Your task to perform on an android device: Show me recent news Image 0: 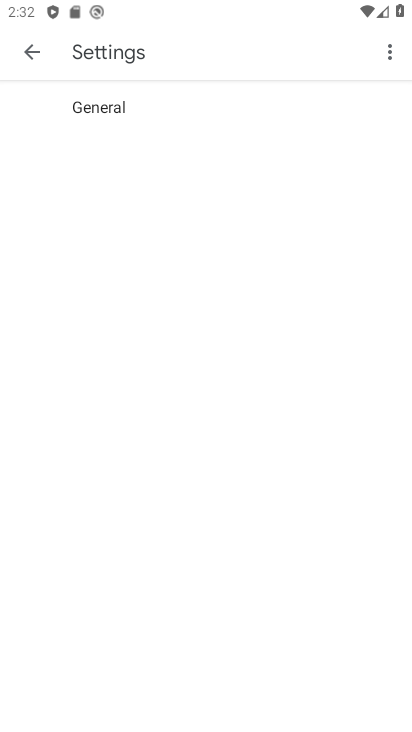
Step 0: press home button
Your task to perform on an android device: Show me recent news Image 1: 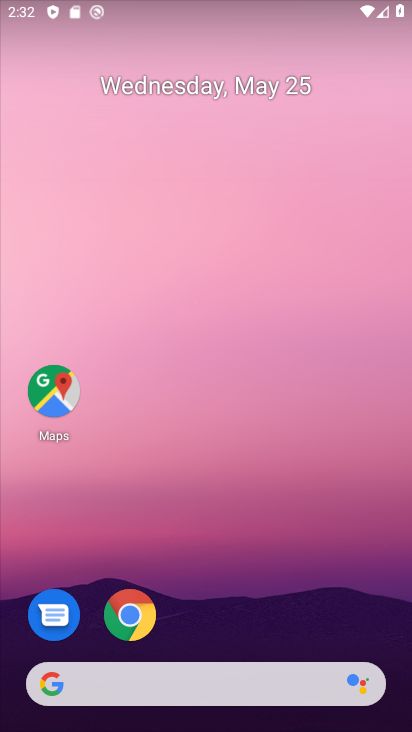
Step 1: drag from (236, 628) to (233, 244)
Your task to perform on an android device: Show me recent news Image 2: 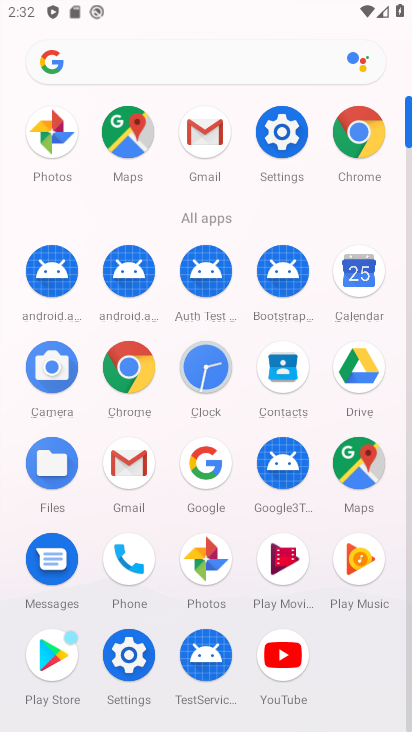
Step 2: click (131, 77)
Your task to perform on an android device: Show me recent news Image 3: 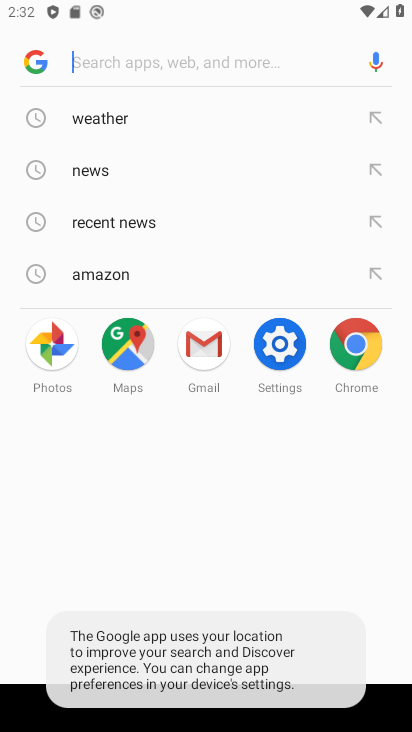
Step 3: click (139, 225)
Your task to perform on an android device: Show me recent news Image 4: 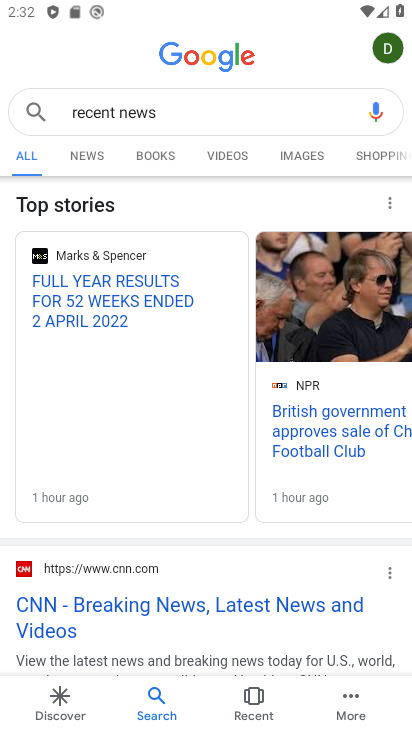
Step 4: task complete